Your task to perform on an android device: read, delete, or share a saved page in the chrome app Image 0: 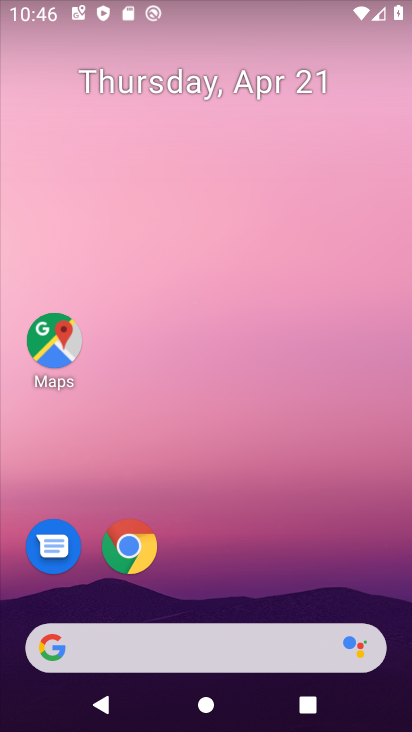
Step 0: drag from (252, 519) to (219, 92)
Your task to perform on an android device: read, delete, or share a saved page in the chrome app Image 1: 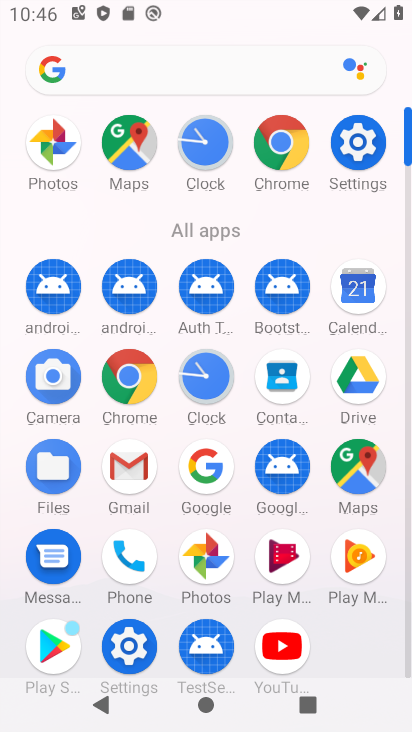
Step 1: click (134, 375)
Your task to perform on an android device: read, delete, or share a saved page in the chrome app Image 2: 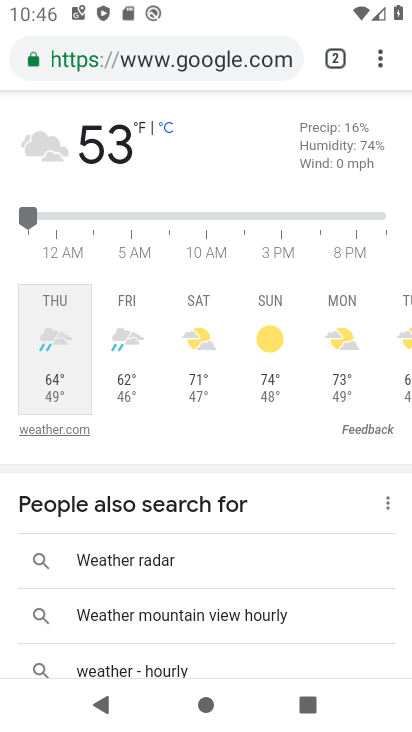
Step 2: task complete